Your task to perform on an android device: Show me the alarms in the clock app Image 0: 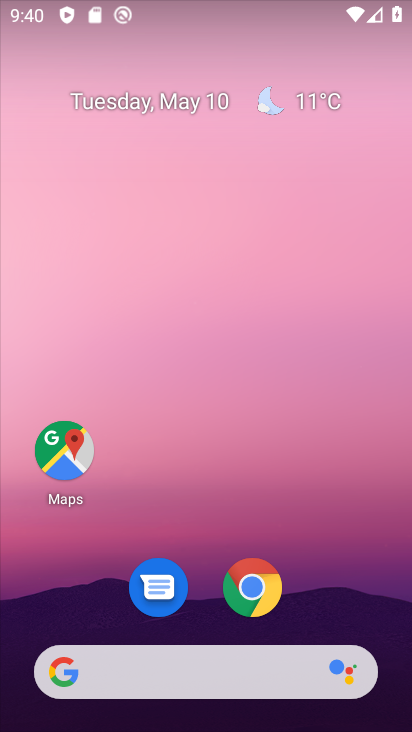
Step 0: drag from (208, 617) to (343, 12)
Your task to perform on an android device: Show me the alarms in the clock app Image 1: 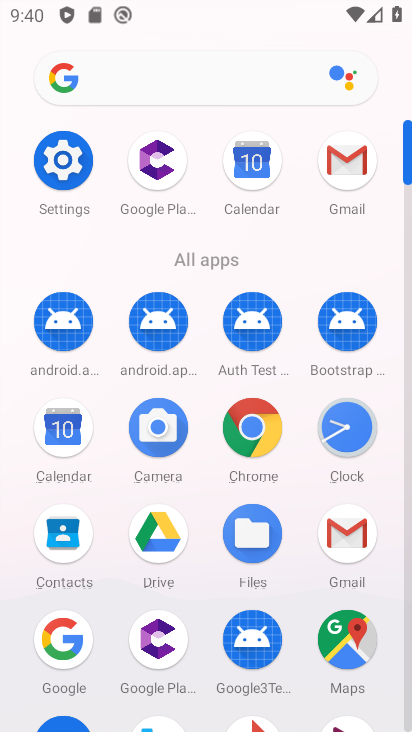
Step 1: click (351, 435)
Your task to perform on an android device: Show me the alarms in the clock app Image 2: 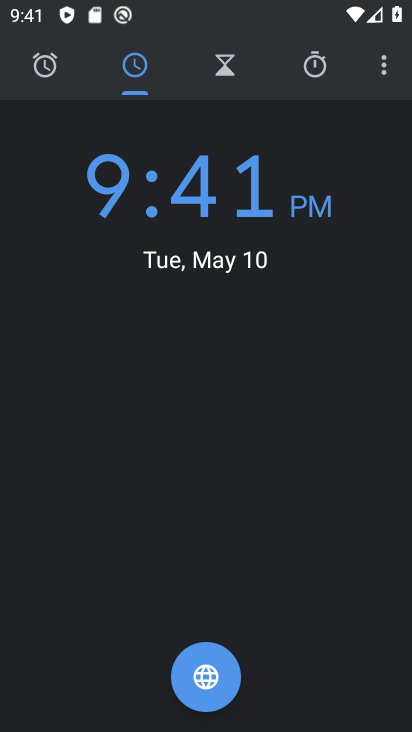
Step 2: click (27, 64)
Your task to perform on an android device: Show me the alarms in the clock app Image 3: 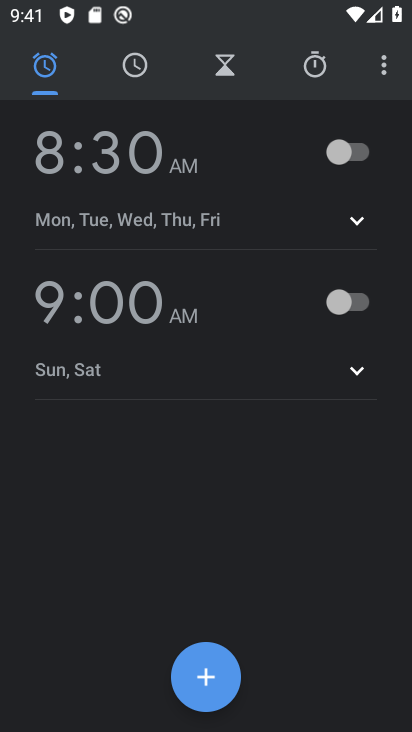
Step 3: task complete